Your task to perform on an android device: View the shopping cart on newegg. Add razer kraken to the cart on newegg, then select checkout. Image 0: 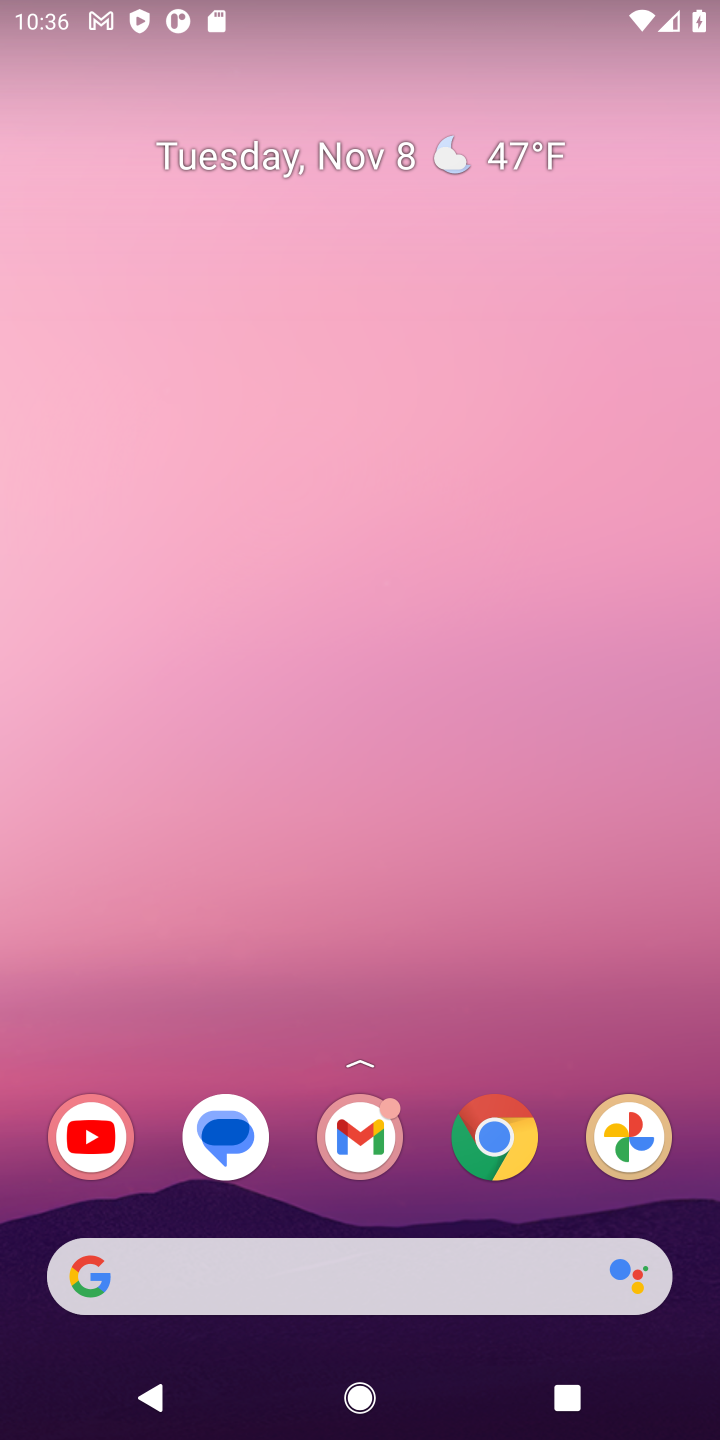
Step 0: click (493, 1134)
Your task to perform on an android device: View the shopping cart on newegg. Add razer kraken to the cart on newegg, then select checkout. Image 1: 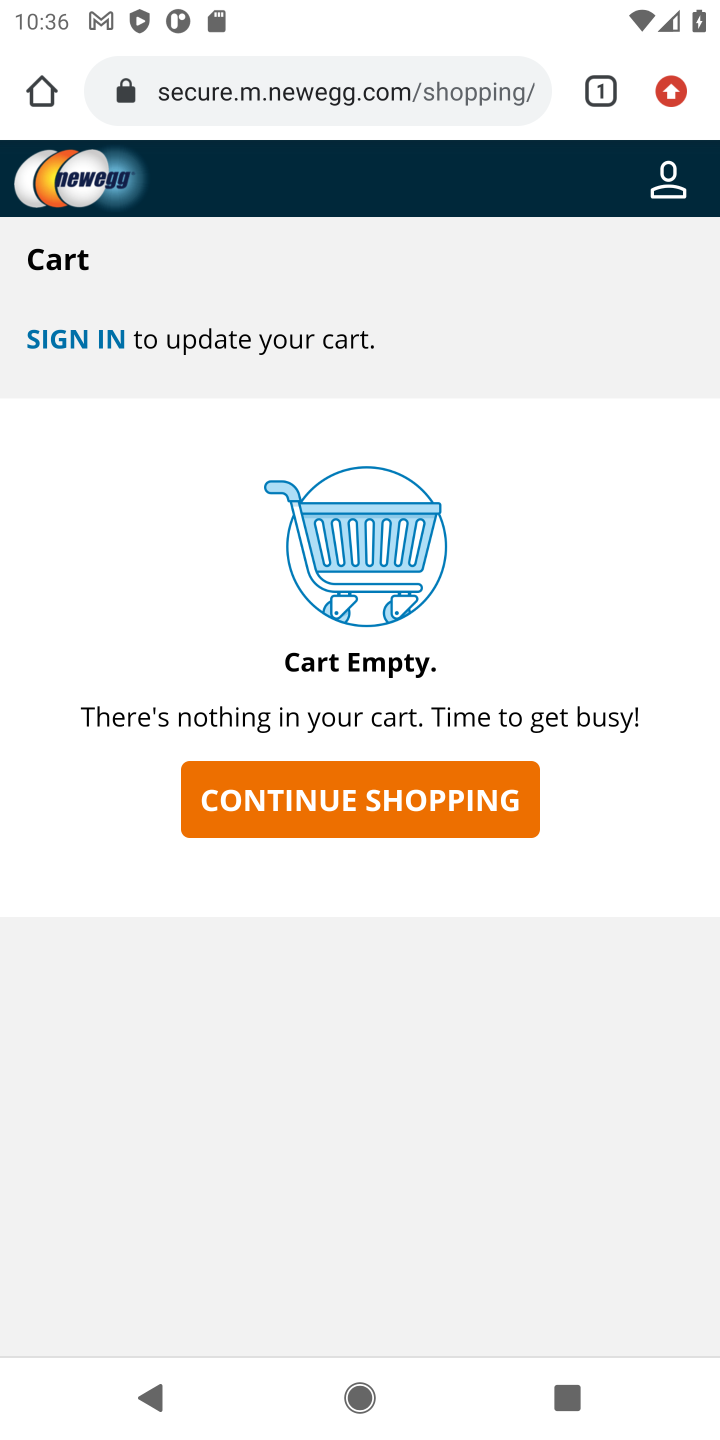
Step 1: click (364, 791)
Your task to perform on an android device: View the shopping cart on newegg. Add razer kraken to the cart on newegg, then select checkout. Image 2: 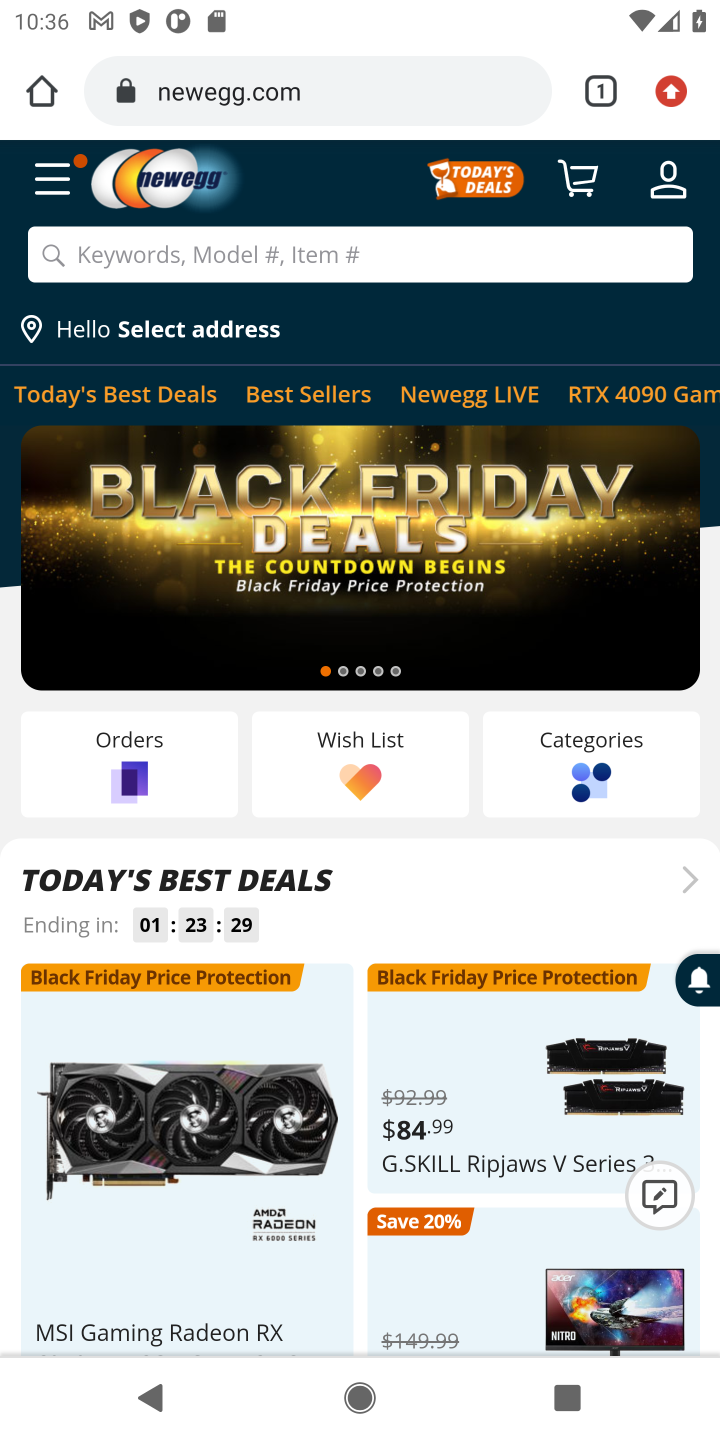
Step 2: click (272, 248)
Your task to perform on an android device: View the shopping cart on newegg. Add razer kraken to the cart on newegg, then select checkout. Image 3: 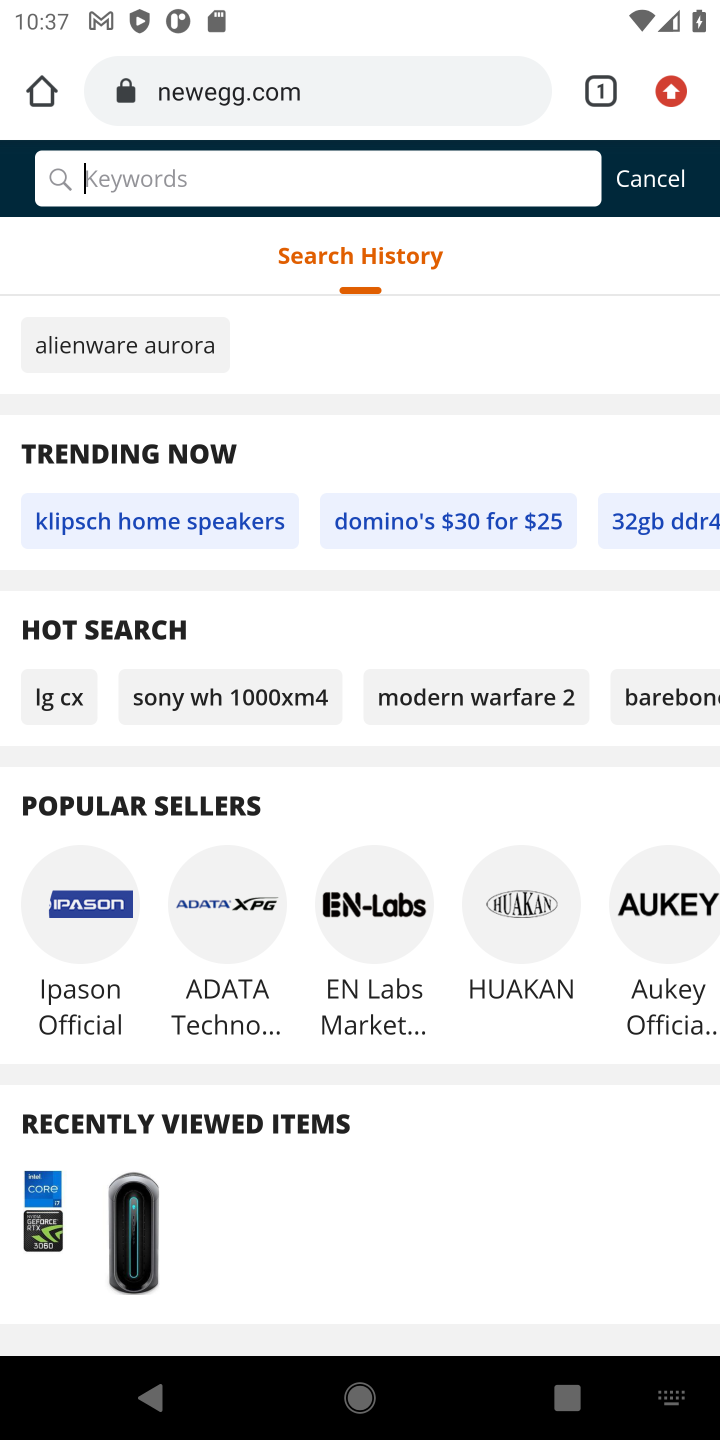
Step 3: type "razer kraken"
Your task to perform on an android device: View the shopping cart on newegg. Add razer kraken to the cart on newegg, then select checkout. Image 4: 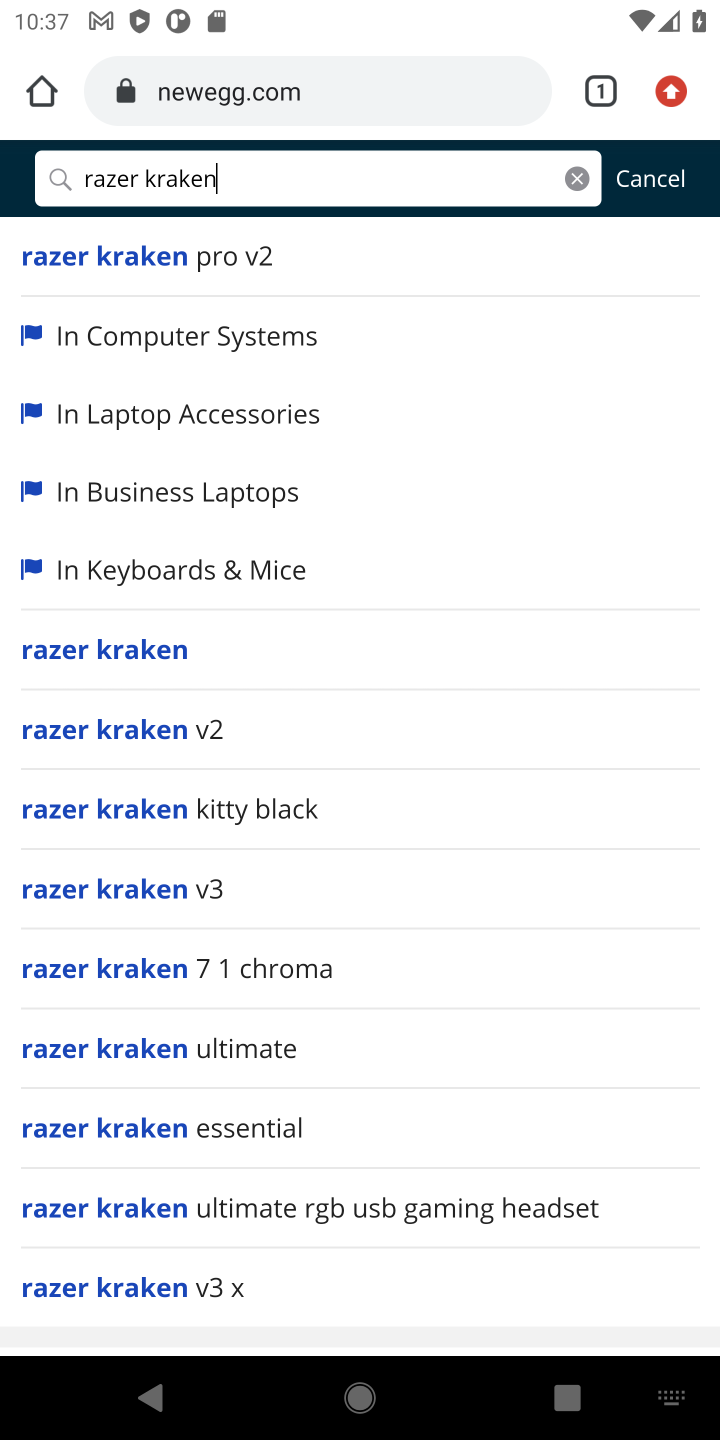
Step 4: click (113, 647)
Your task to perform on an android device: View the shopping cart on newegg. Add razer kraken to the cart on newegg, then select checkout. Image 5: 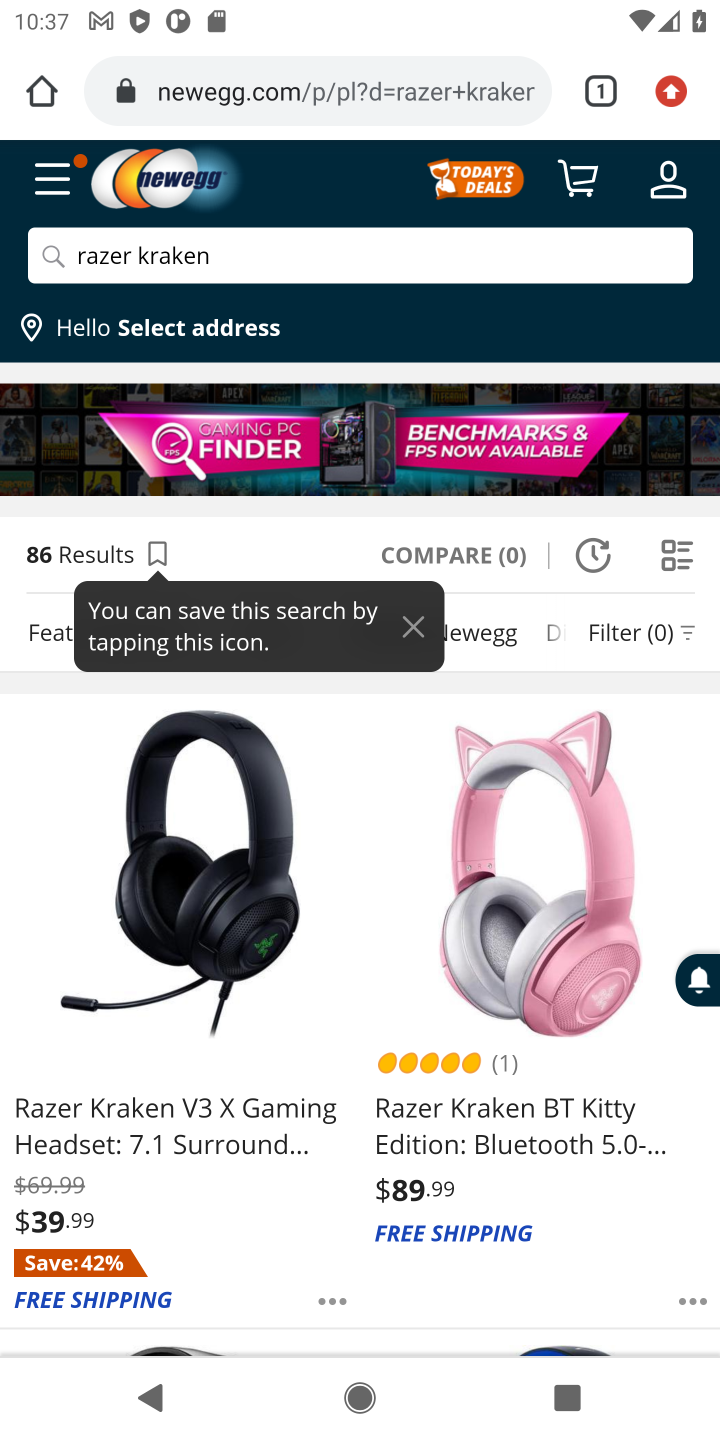
Step 5: click (213, 1109)
Your task to perform on an android device: View the shopping cart on newegg. Add razer kraken to the cart on newegg, then select checkout. Image 6: 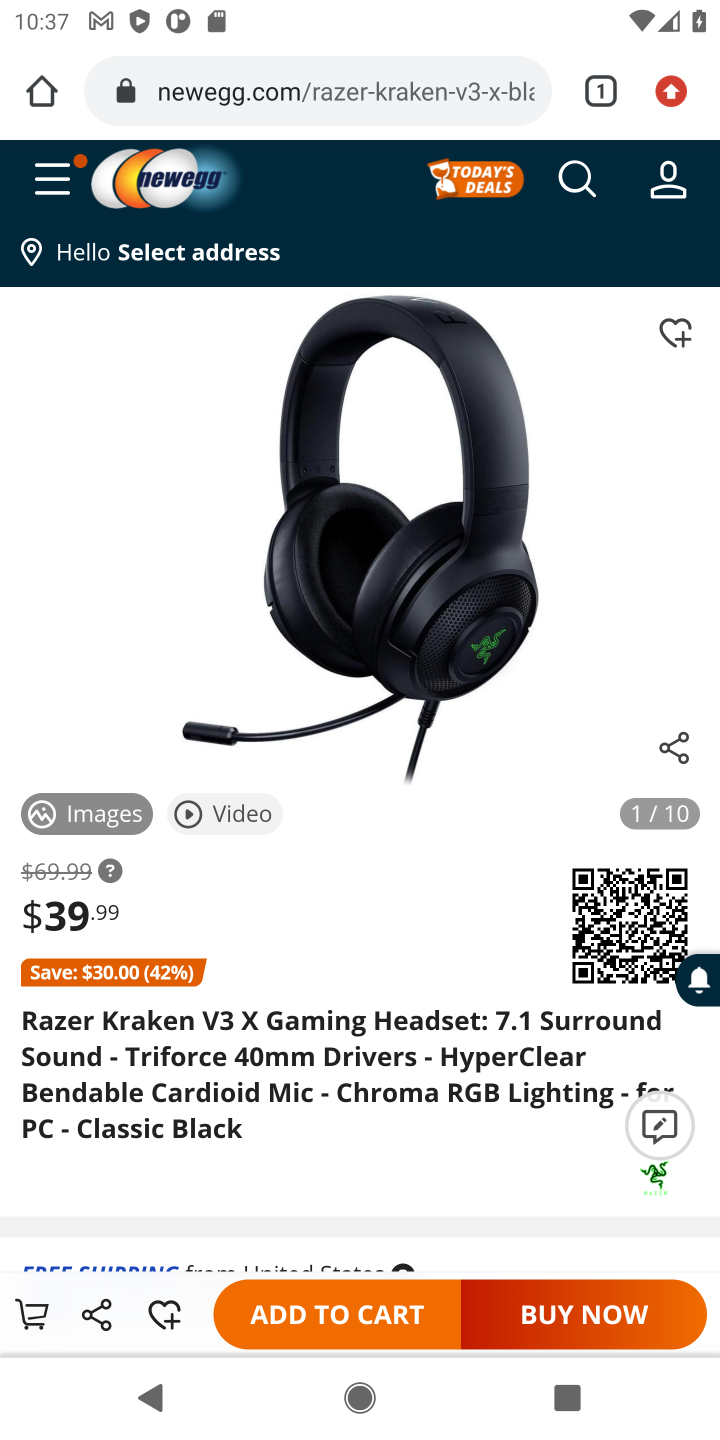
Step 6: click (334, 1313)
Your task to perform on an android device: View the shopping cart on newegg. Add razer kraken to the cart on newegg, then select checkout. Image 7: 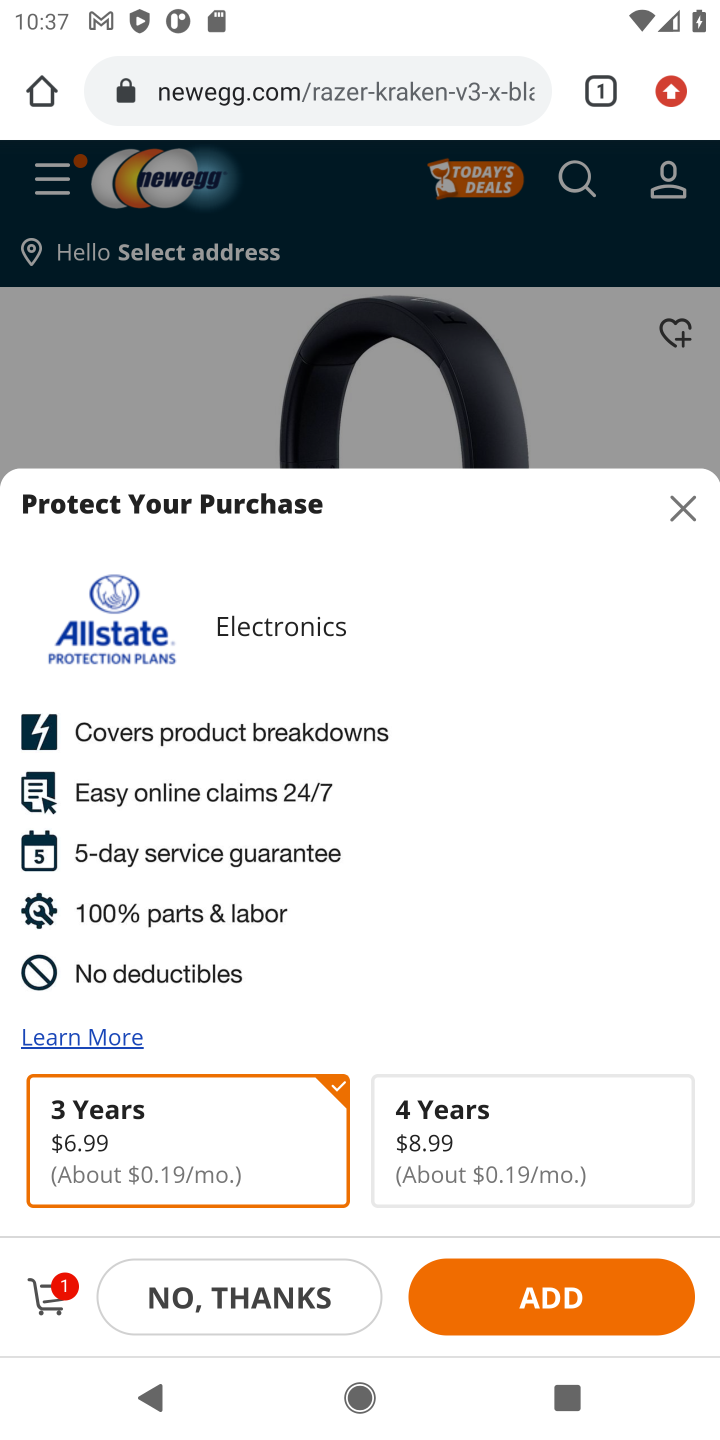
Step 7: click (334, 1313)
Your task to perform on an android device: View the shopping cart on newegg. Add razer kraken to the cart on newegg, then select checkout. Image 8: 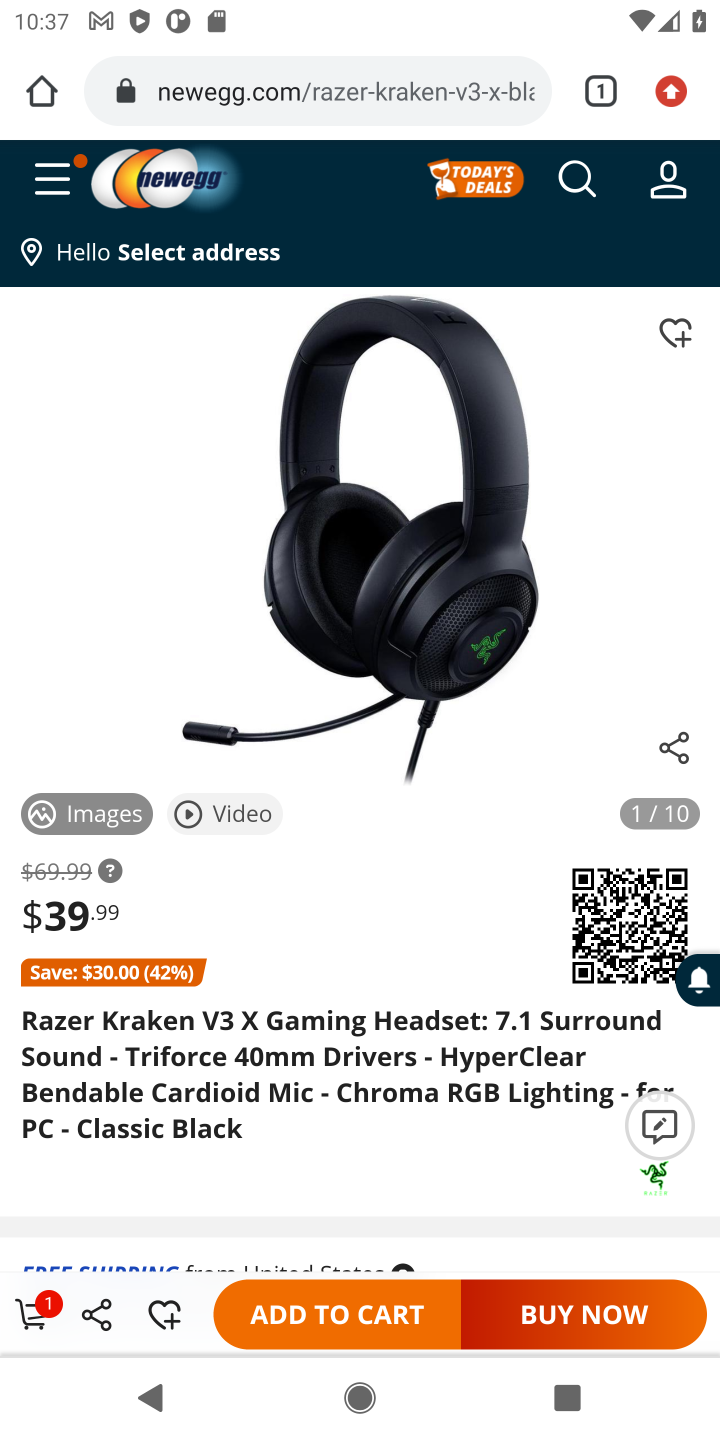
Step 8: click (29, 1323)
Your task to perform on an android device: View the shopping cart on newegg. Add razer kraken to the cart on newegg, then select checkout. Image 9: 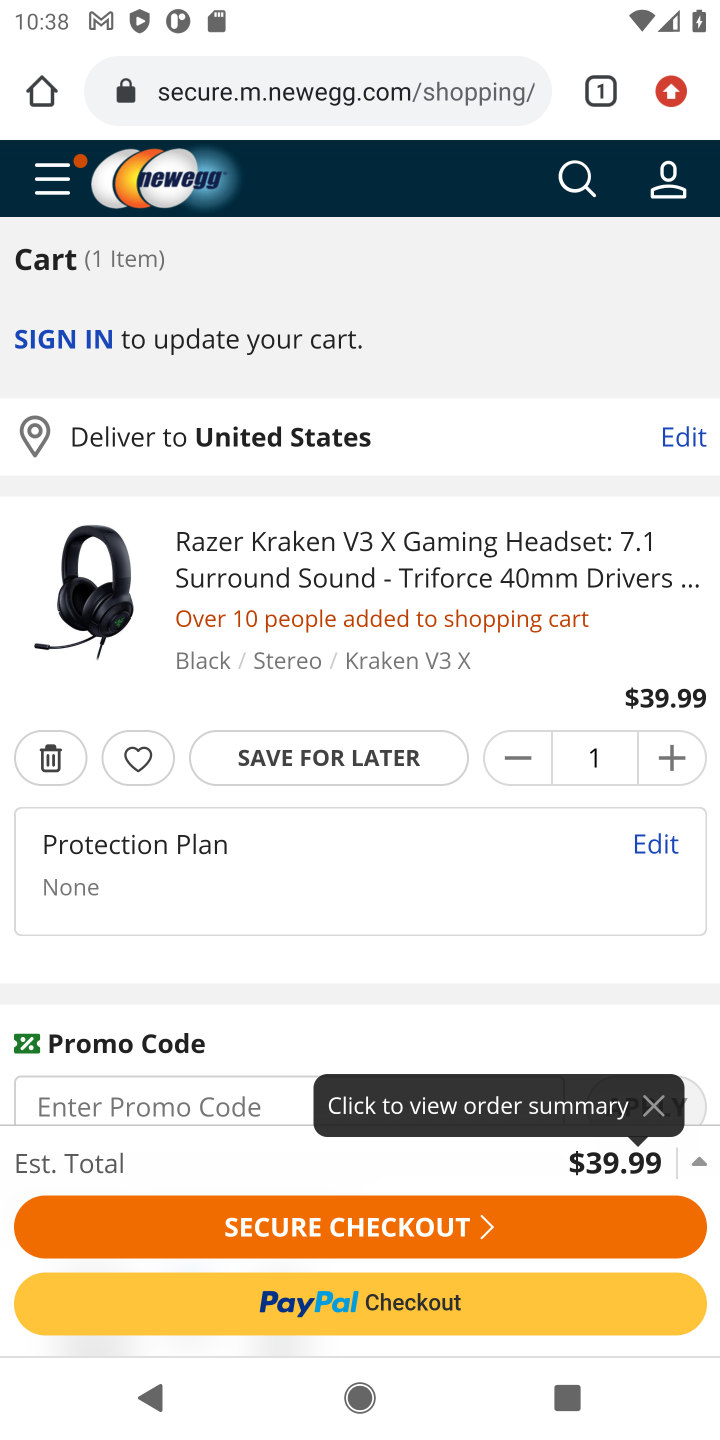
Step 9: click (311, 1224)
Your task to perform on an android device: View the shopping cart on newegg. Add razer kraken to the cart on newegg, then select checkout. Image 10: 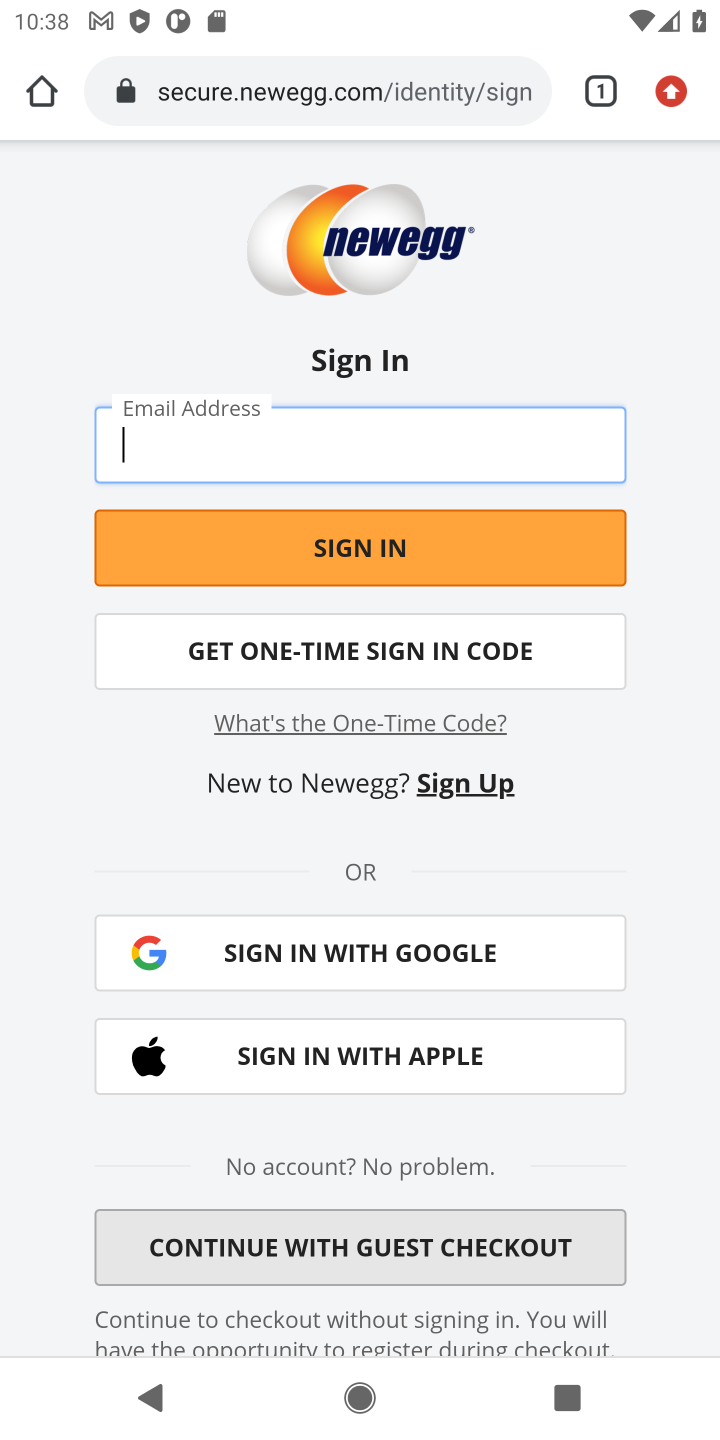
Step 10: task complete